Your task to perform on an android device: Open Google Image 0: 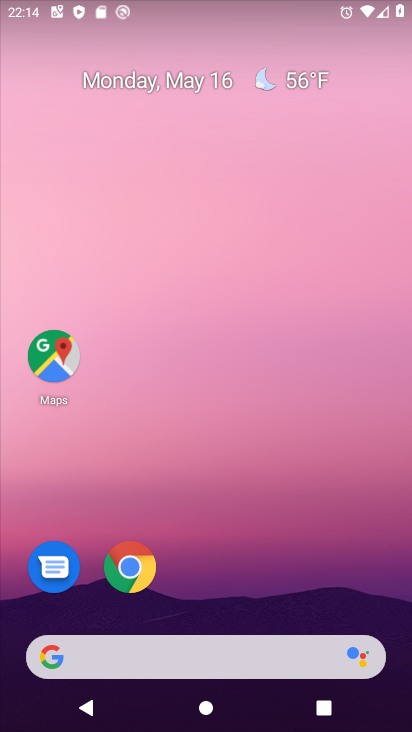
Step 0: drag from (326, 599) to (319, 158)
Your task to perform on an android device: Open Google Image 1: 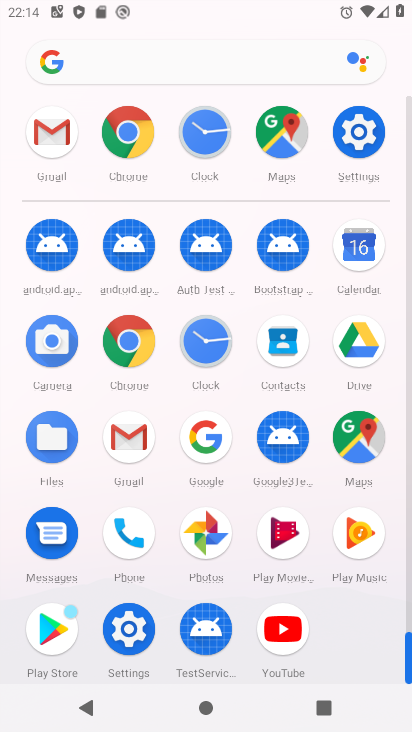
Step 1: click (193, 437)
Your task to perform on an android device: Open Google Image 2: 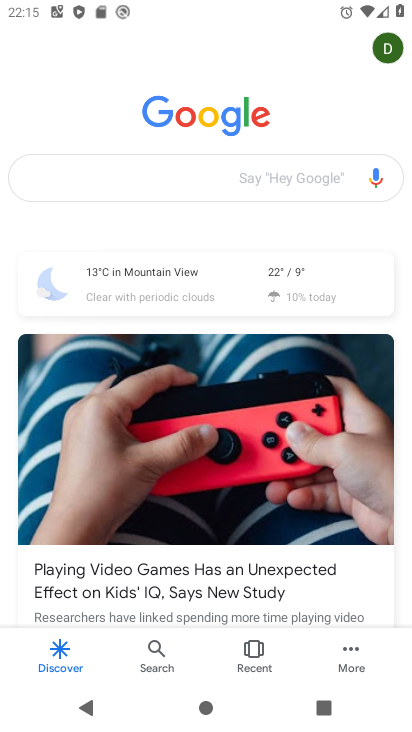
Step 2: task complete